Your task to perform on an android device: turn off improve location accuracy Image 0: 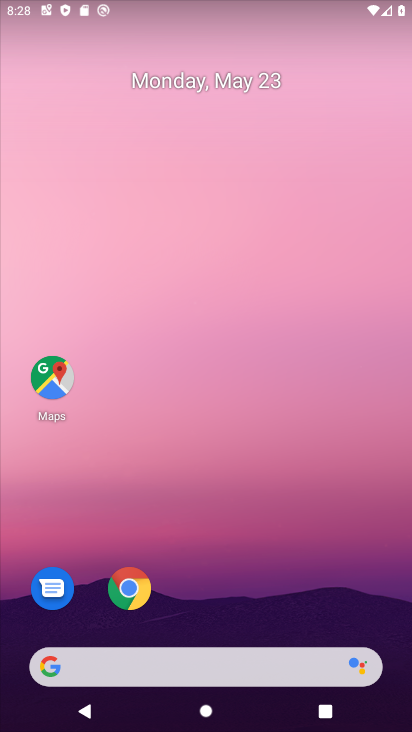
Step 0: drag from (402, 719) to (341, 209)
Your task to perform on an android device: turn off improve location accuracy Image 1: 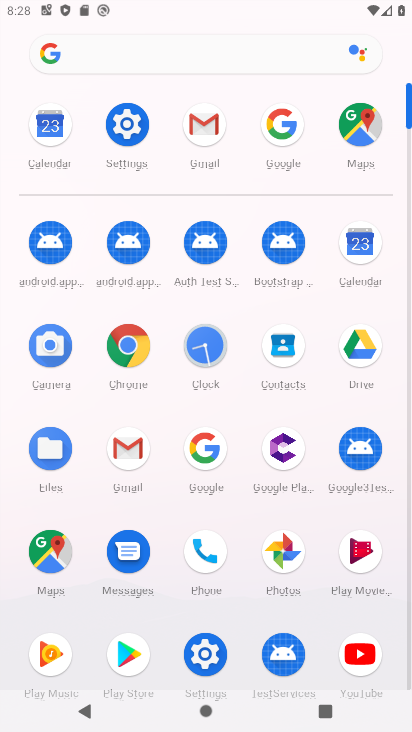
Step 1: click (204, 652)
Your task to perform on an android device: turn off improve location accuracy Image 2: 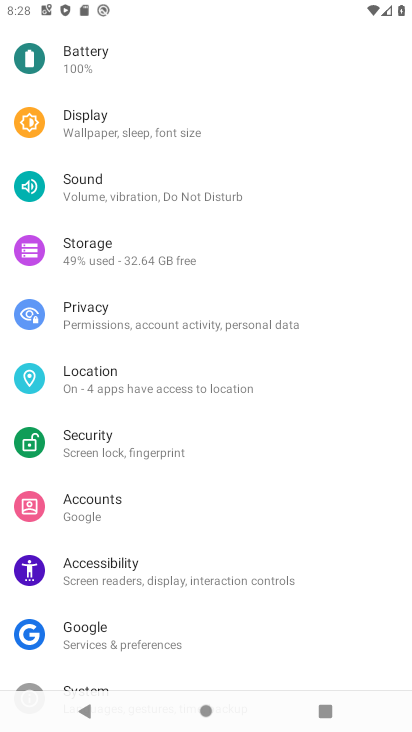
Step 2: drag from (285, 666) to (274, 364)
Your task to perform on an android device: turn off improve location accuracy Image 3: 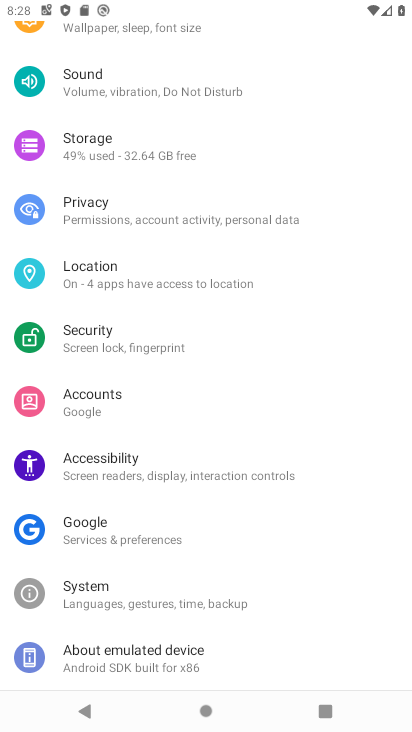
Step 3: click (102, 263)
Your task to perform on an android device: turn off improve location accuracy Image 4: 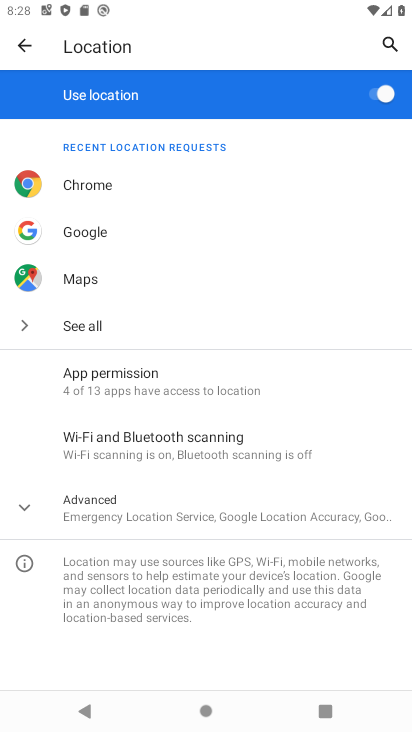
Step 4: click (23, 508)
Your task to perform on an android device: turn off improve location accuracy Image 5: 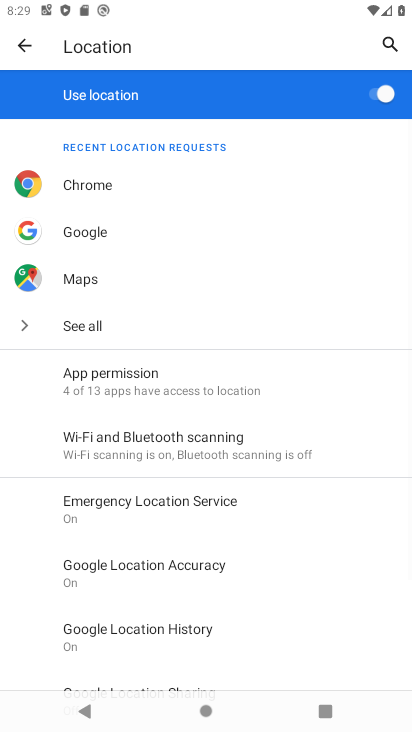
Step 5: drag from (276, 599) to (266, 366)
Your task to perform on an android device: turn off improve location accuracy Image 6: 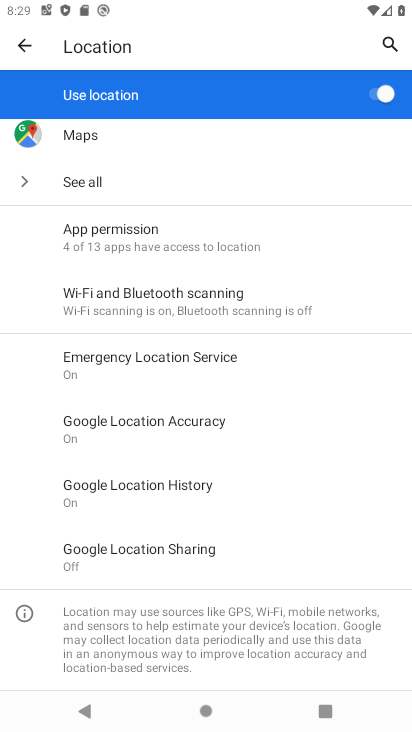
Step 6: click (172, 427)
Your task to perform on an android device: turn off improve location accuracy Image 7: 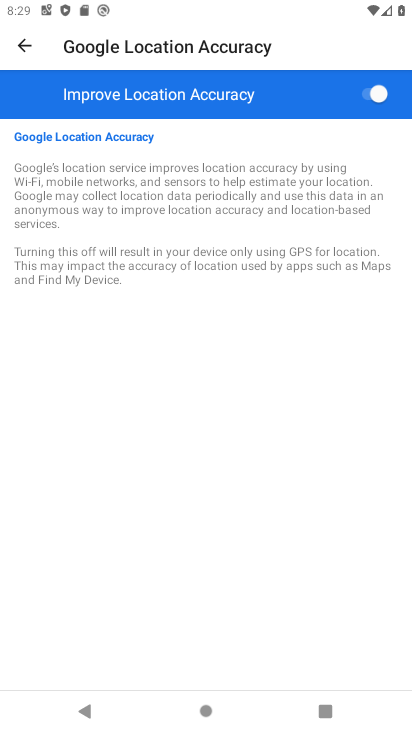
Step 7: click (365, 101)
Your task to perform on an android device: turn off improve location accuracy Image 8: 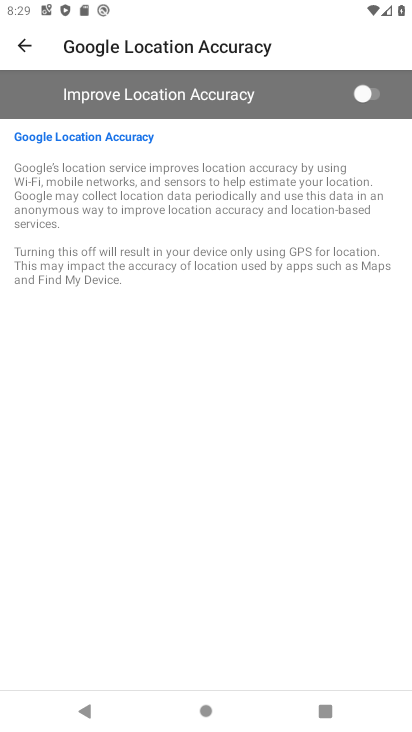
Step 8: task complete